Your task to perform on an android device: turn on location history Image 0: 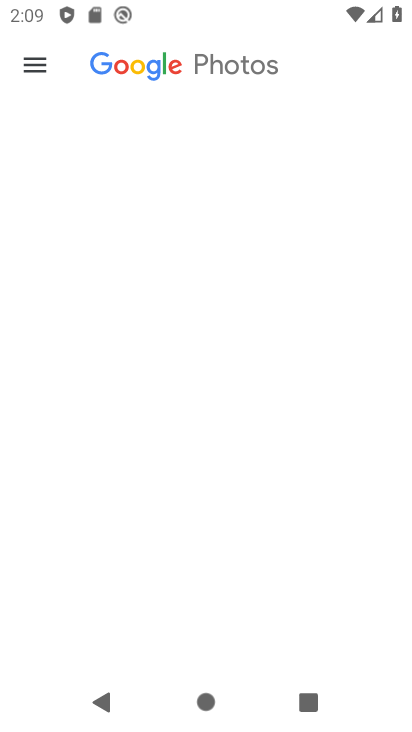
Step 0: drag from (336, 568) to (411, 201)
Your task to perform on an android device: turn on location history Image 1: 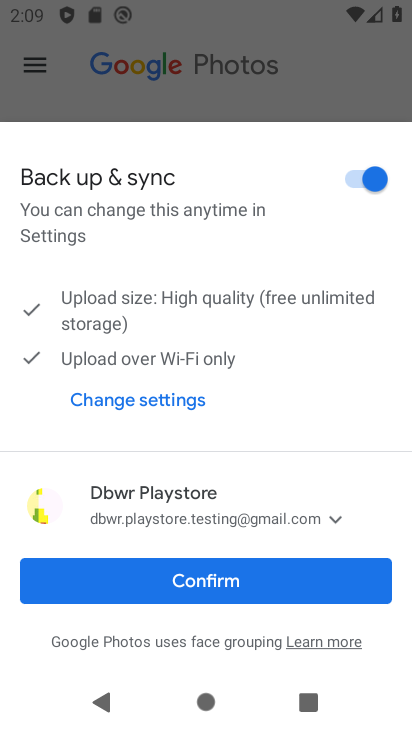
Step 1: press home button
Your task to perform on an android device: turn on location history Image 2: 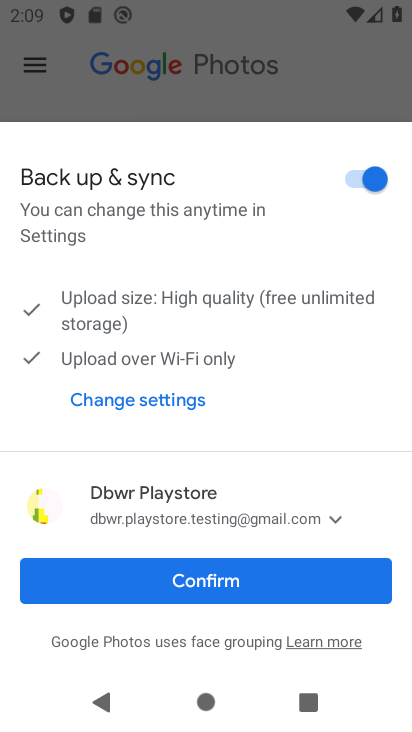
Step 2: drag from (411, 201) to (391, 412)
Your task to perform on an android device: turn on location history Image 3: 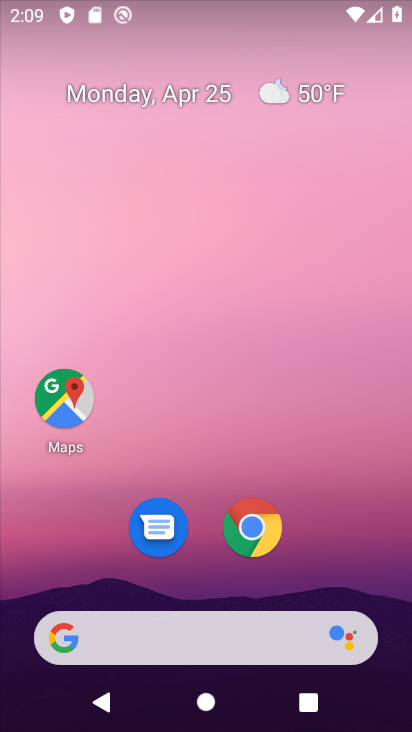
Step 3: drag from (336, 579) to (350, 190)
Your task to perform on an android device: turn on location history Image 4: 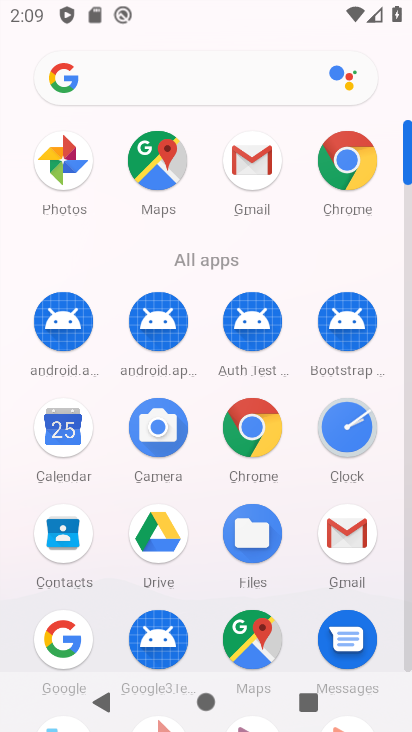
Step 4: drag from (302, 596) to (306, 274)
Your task to perform on an android device: turn on location history Image 5: 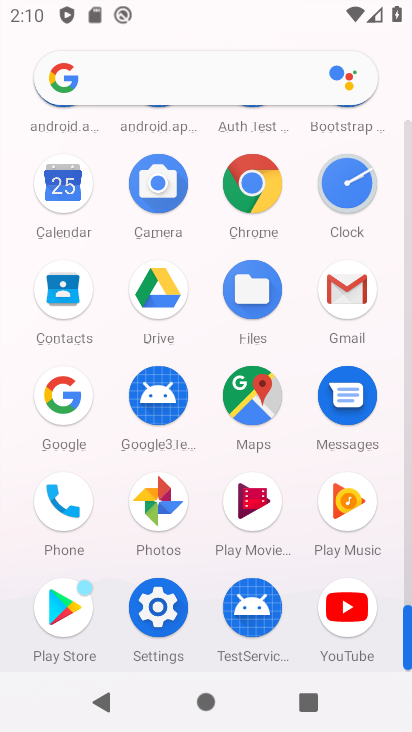
Step 5: click (167, 611)
Your task to perform on an android device: turn on location history Image 6: 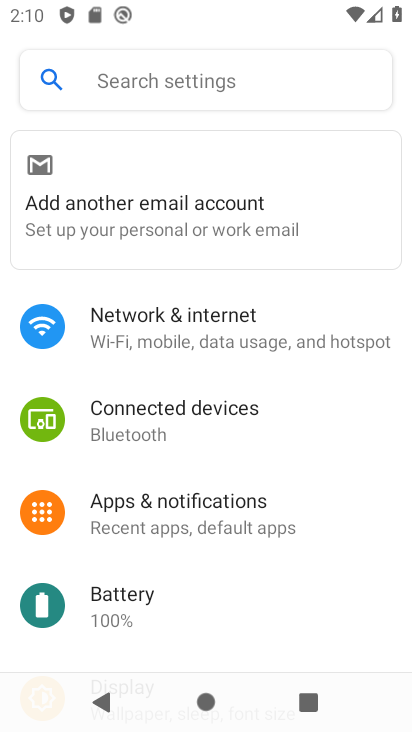
Step 6: drag from (246, 582) to (241, 246)
Your task to perform on an android device: turn on location history Image 7: 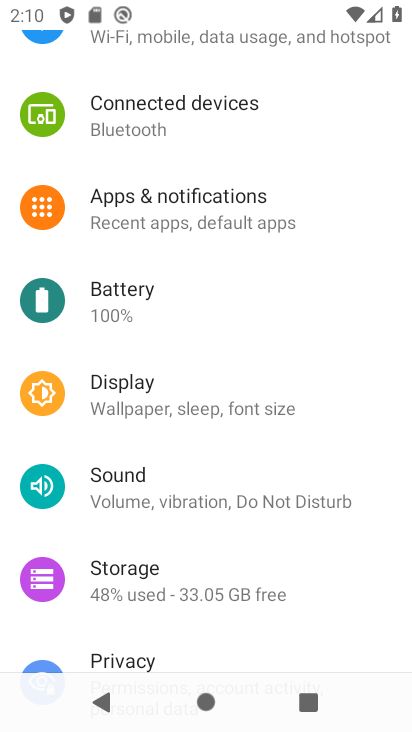
Step 7: drag from (208, 564) to (256, 146)
Your task to perform on an android device: turn on location history Image 8: 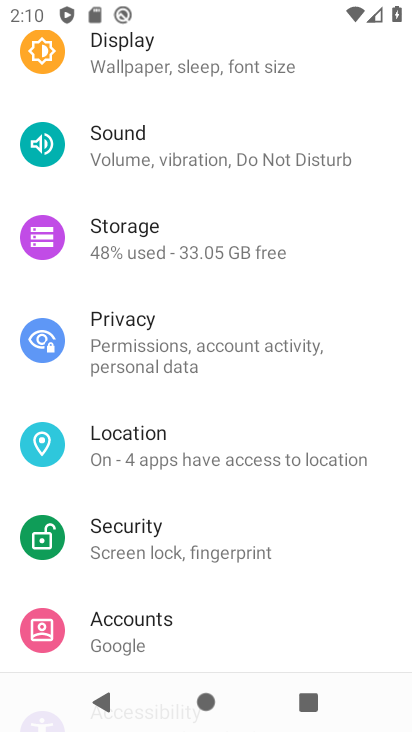
Step 8: click (188, 475)
Your task to perform on an android device: turn on location history Image 9: 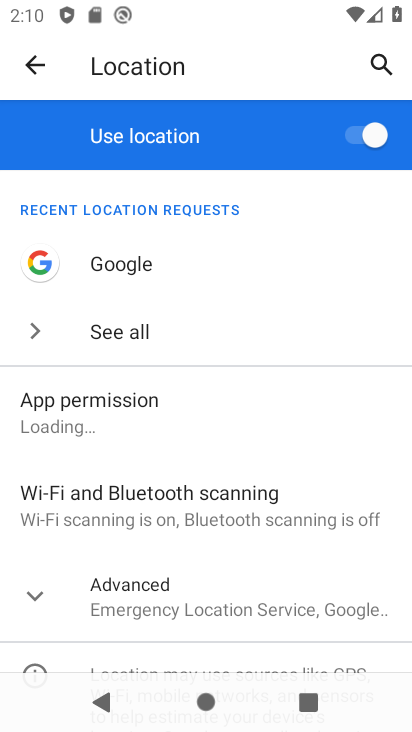
Step 9: click (205, 602)
Your task to perform on an android device: turn on location history Image 10: 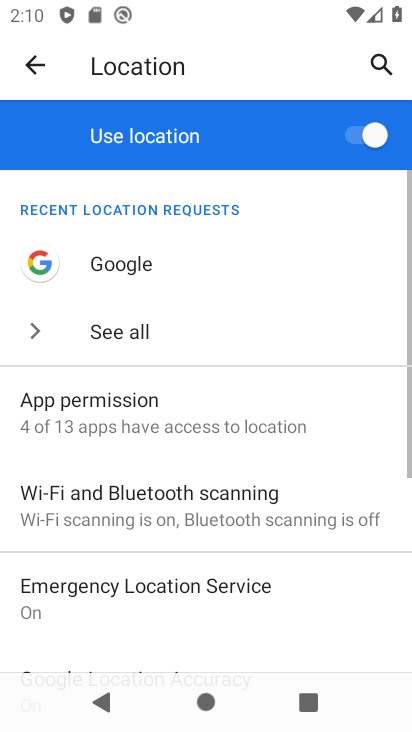
Step 10: drag from (234, 613) to (249, 248)
Your task to perform on an android device: turn on location history Image 11: 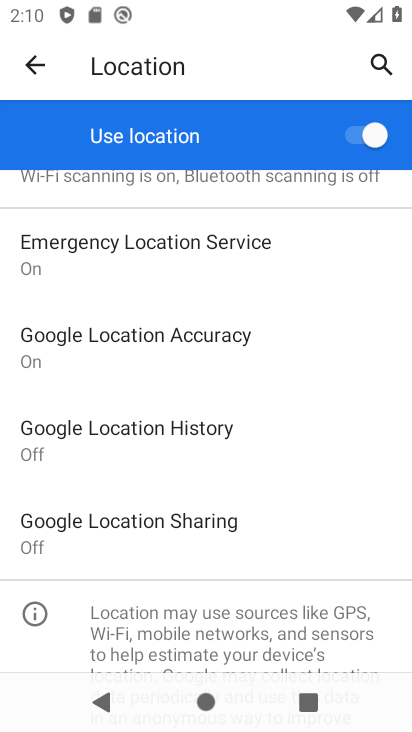
Step 11: click (196, 430)
Your task to perform on an android device: turn on location history Image 12: 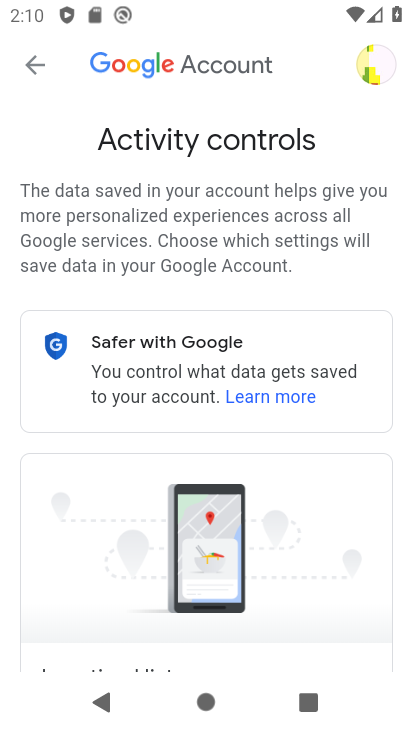
Step 12: task complete